Your task to perform on an android device: Open the map Image 0: 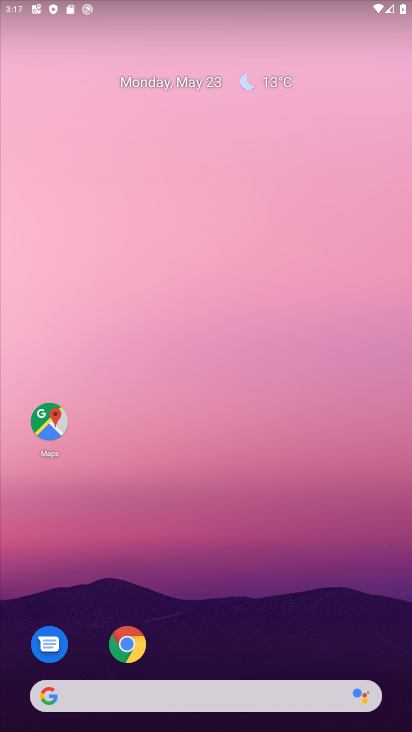
Step 0: click (35, 411)
Your task to perform on an android device: Open the map Image 1: 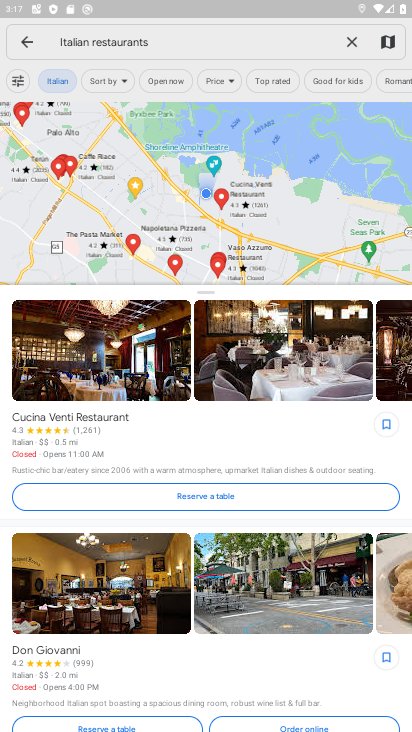
Step 1: task complete